Your task to perform on an android device: open app "Messages" (install if not already installed), go to login, and select forgot password Image 0: 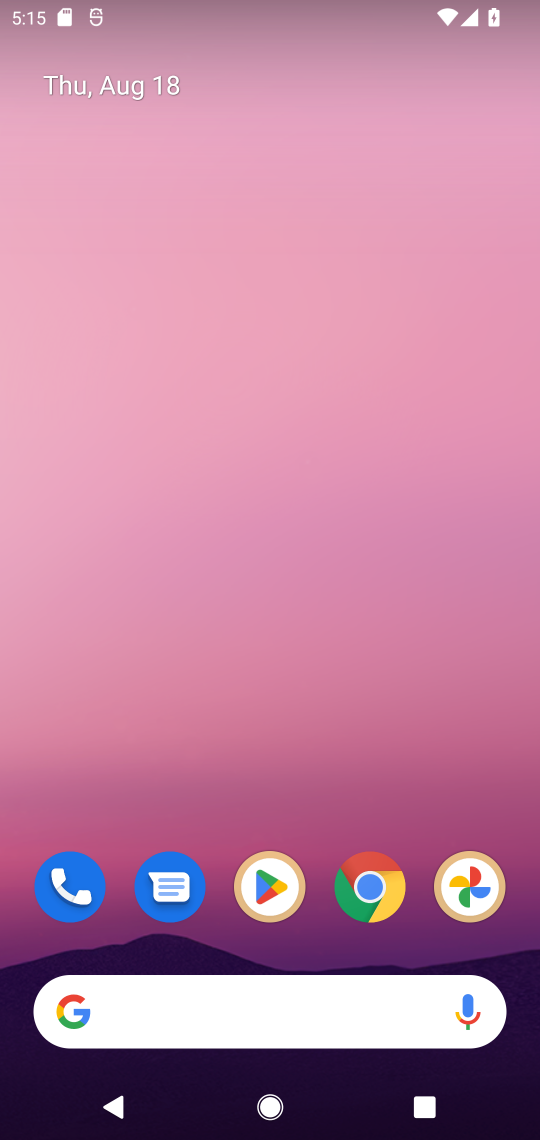
Step 0: click (168, 886)
Your task to perform on an android device: open app "Messages" (install if not already installed), go to login, and select forgot password Image 1: 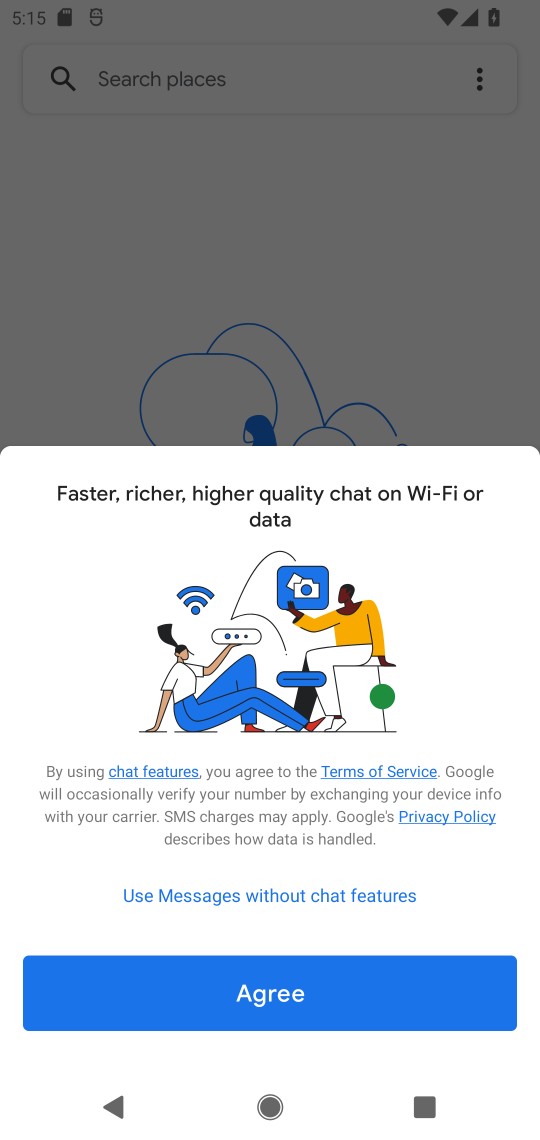
Step 1: click (274, 992)
Your task to perform on an android device: open app "Messages" (install if not already installed), go to login, and select forgot password Image 2: 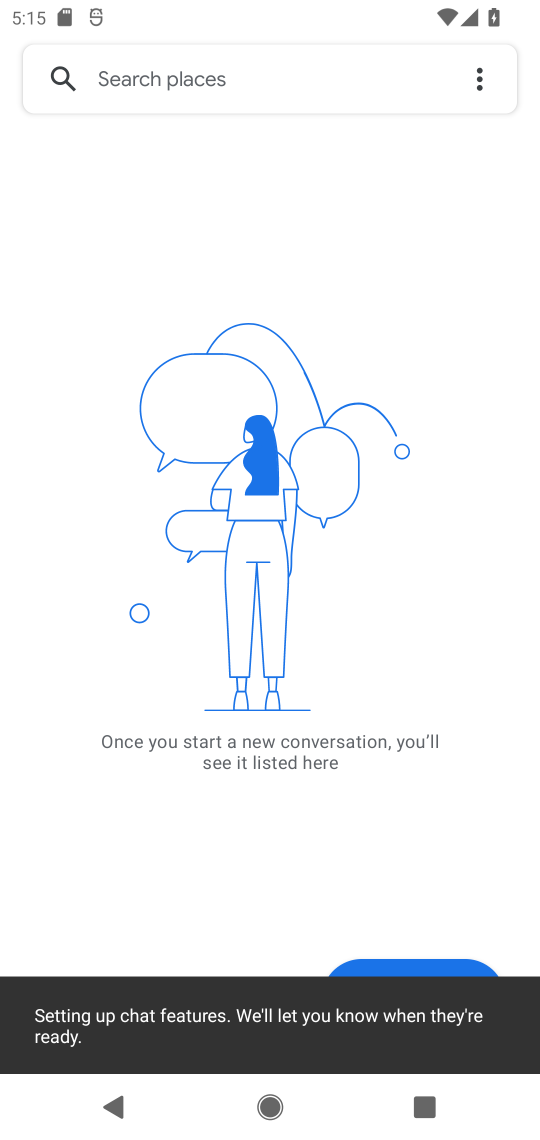
Step 2: task complete